Your task to perform on an android device: see creations saved in the google photos Image 0: 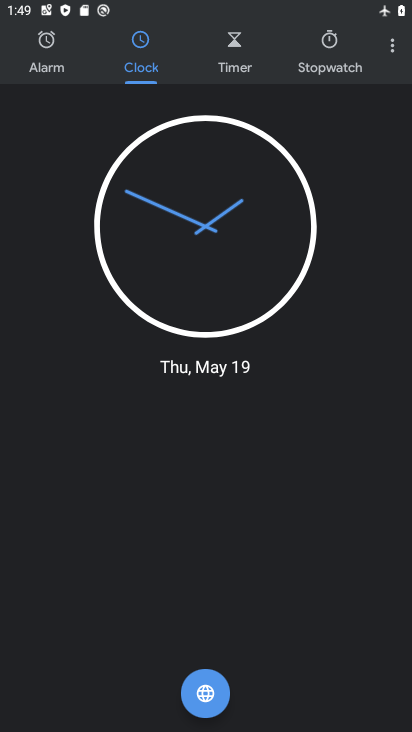
Step 0: press home button
Your task to perform on an android device: see creations saved in the google photos Image 1: 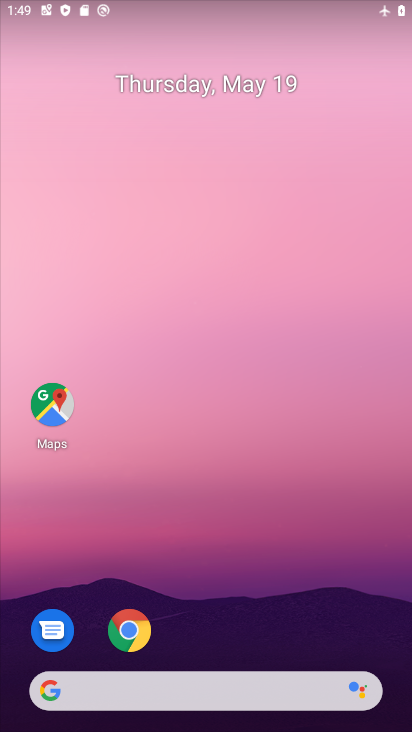
Step 1: drag from (189, 650) to (99, 154)
Your task to perform on an android device: see creations saved in the google photos Image 2: 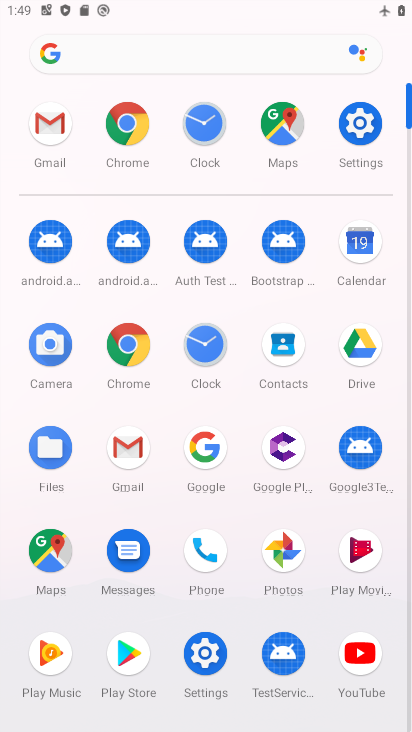
Step 2: click (268, 561)
Your task to perform on an android device: see creations saved in the google photos Image 3: 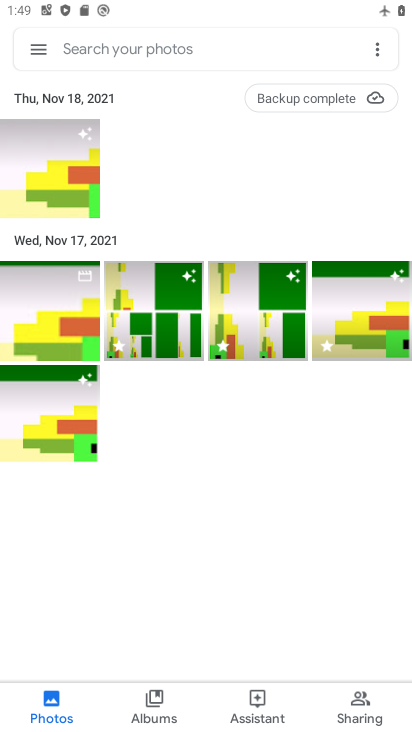
Step 3: click (134, 74)
Your task to perform on an android device: see creations saved in the google photos Image 4: 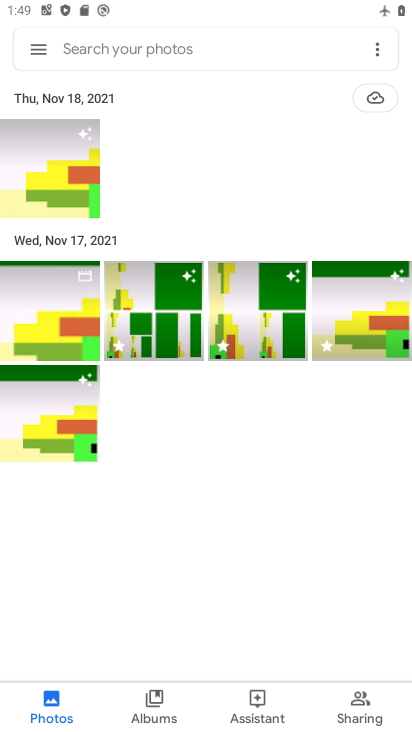
Step 4: click (120, 58)
Your task to perform on an android device: see creations saved in the google photos Image 5: 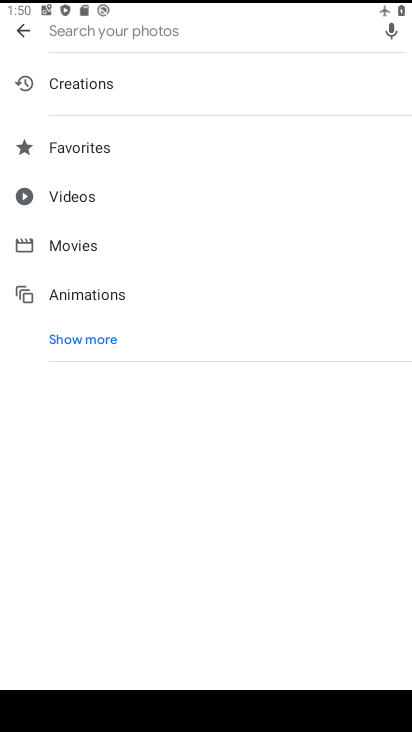
Step 5: click (77, 335)
Your task to perform on an android device: see creations saved in the google photos Image 6: 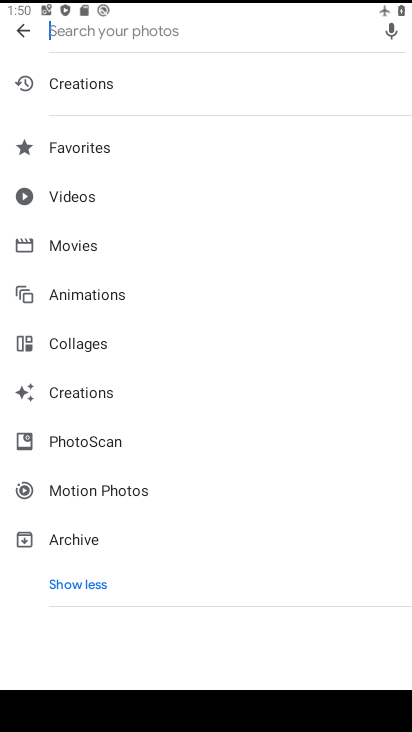
Step 6: click (85, 395)
Your task to perform on an android device: see creations saved in the google photos Image 7: 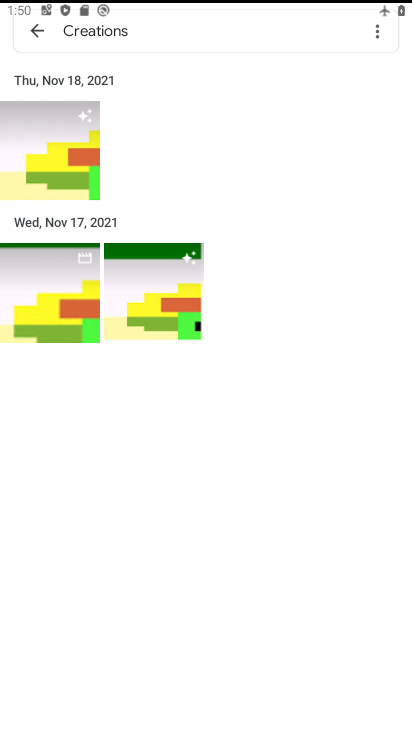
Step 7: task complete